Your task to perform on an android device: add a contact in the contacts app Image 0: 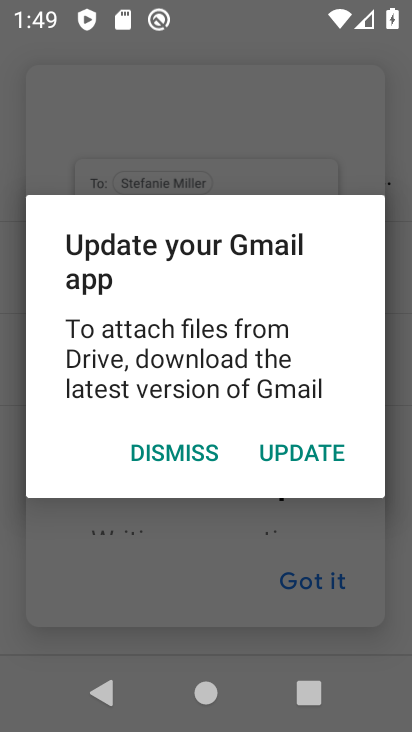
Step 0: press home button
Your task to perform on an android device: add a contact in the contacts app Image 1: 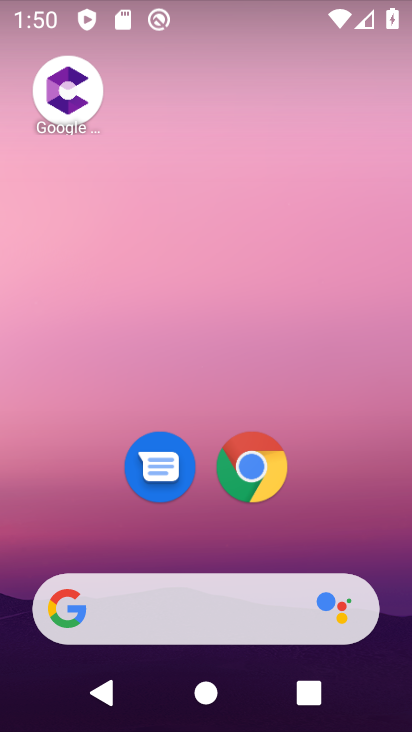
Step 1: drag from (336, 470) to (296, 80)
Your task to perform on an android device: add a contact in the contacts app Image 2: 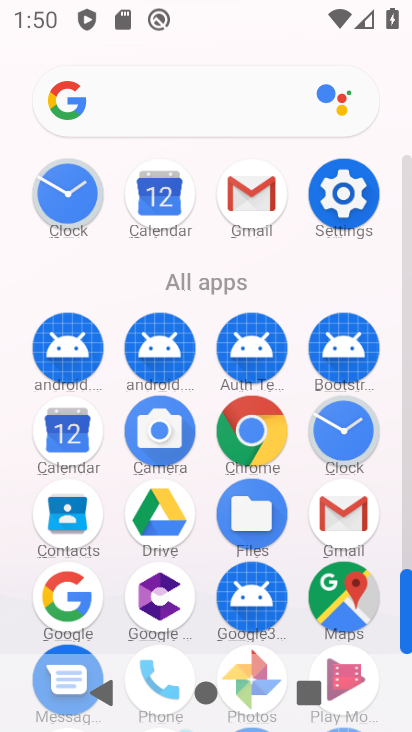
Step 2: click (69, 528)
Your task to perform on an android device: add a contact in the contacts app Image 3: 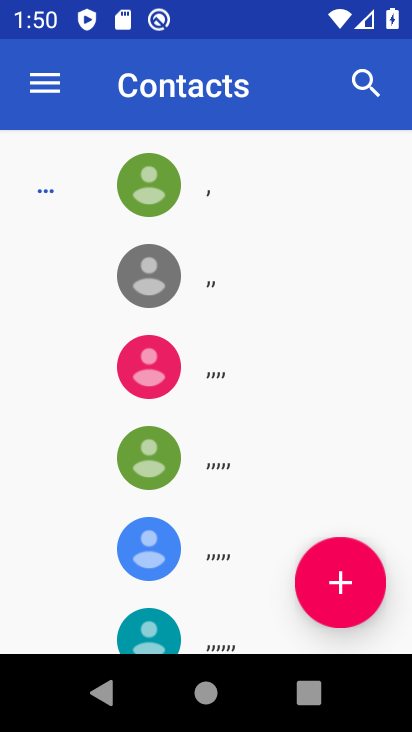
Step 3: click (345, 554)
Your task to perform on an android device: add a contact in the contacts app Image 4: 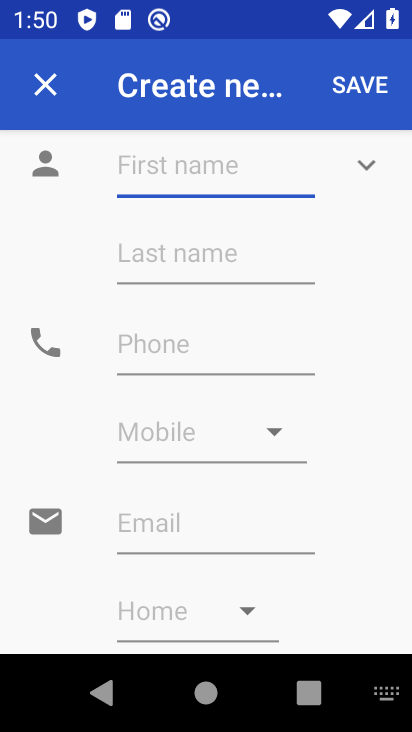
Step 4: type "sfsffs"
Your task to perform on an android device: add a contact in the contacts app Image 5: 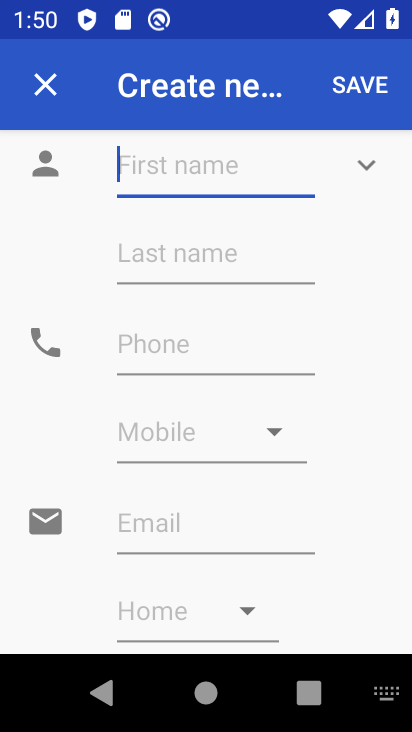
Step 5: click (223, 363)
Your task to perform on an android device: add a contact in the contacts app Image 6: 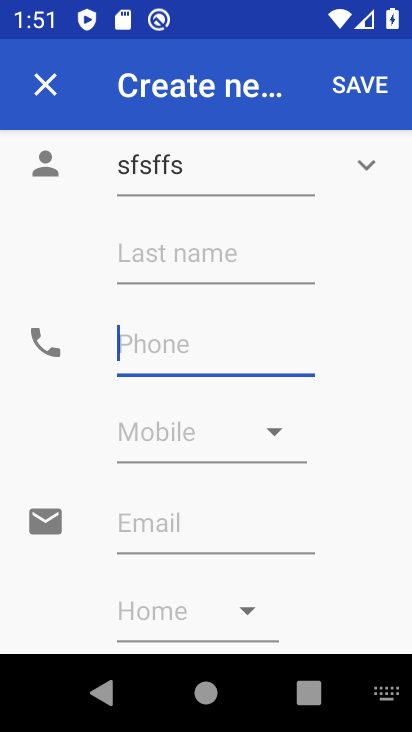
Step 6: type "5544554455"
Your task to perform on an android device: add a contact in the contacts app Image 7: 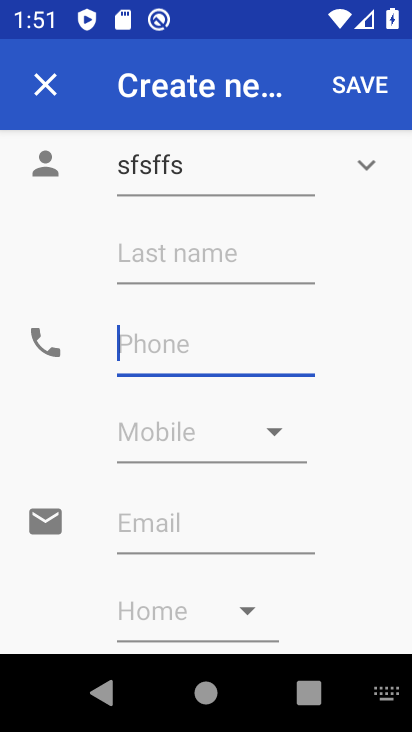
Step 7: click (388, 83)
Your task to perform on an android device: add a contact in the contacts app Image 8: 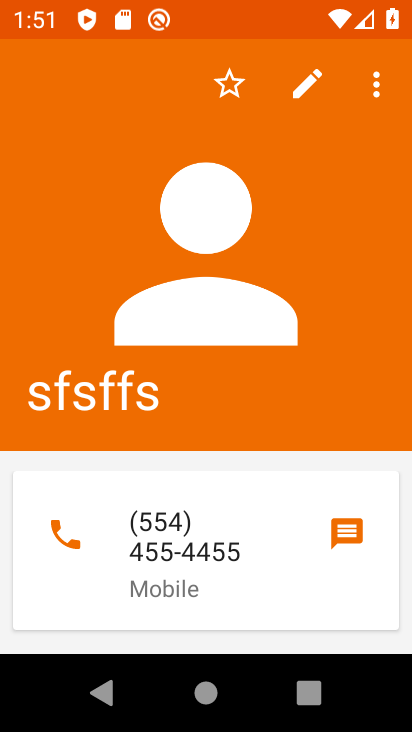
Step 8: task complete